Your task to perform on an android device: turn on showing notifications on the lock screen Image 0: 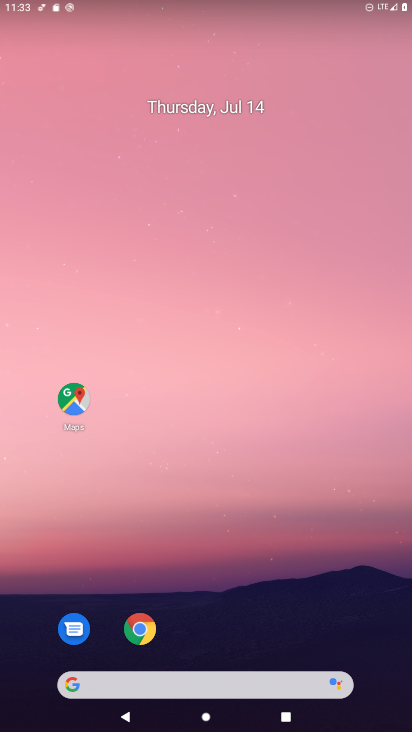
Step 0: drag from (226, 679) to (242, 286)
Your task to perform on an android device: turn on showing notifications on the lock screen Image 1: 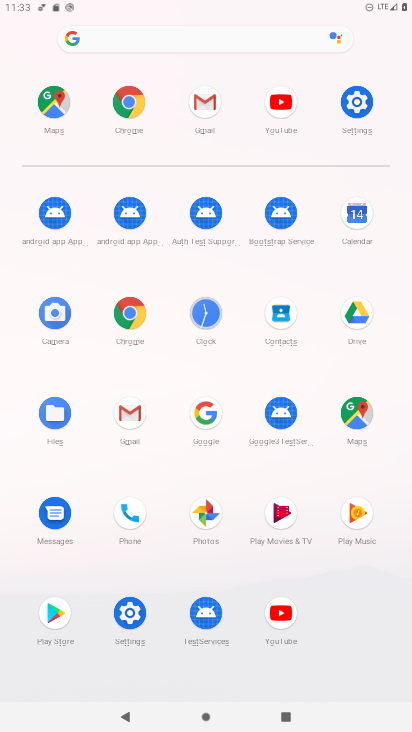
Step 1: click (361, 120)
Your task to perform on an android device: turn on showing notifications on the lock screen Image 2: 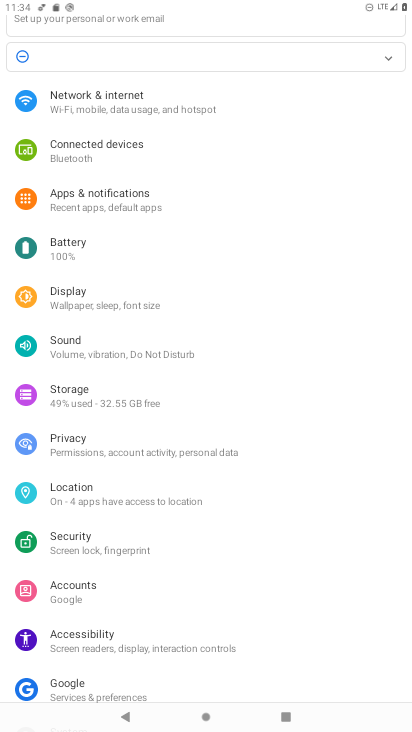
Step 2: click (103, 208)
Your task to perform on an android device: turn on showing notifications on the lock screen Image 3: 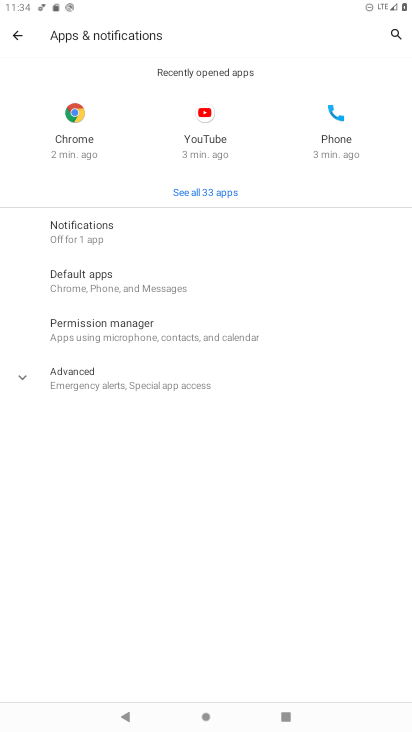
Step 3: click (88, 227)
Your task to perform on an android device: turn on showing notifications on the lock screen Image 4: 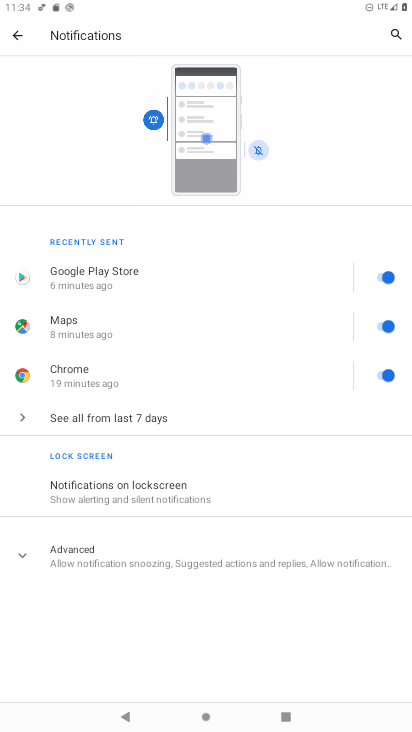
Step 4: click (166, 493)
Your task to perform on an android device: turn on showing notifications on the lock screen Image 5: 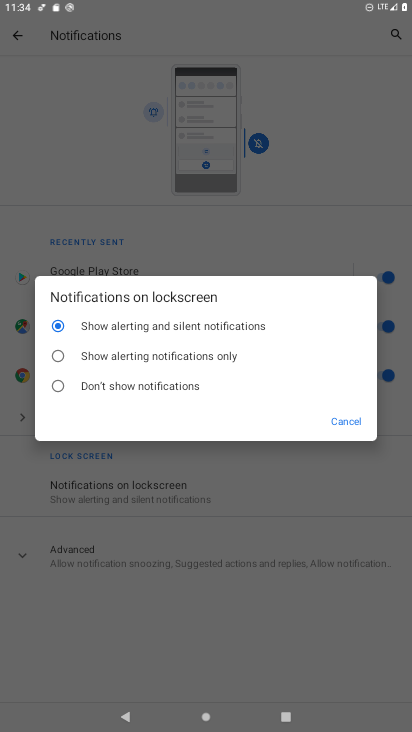
Step 5: task complete